Your task to perform on an android device: Open Android settings Image 0: 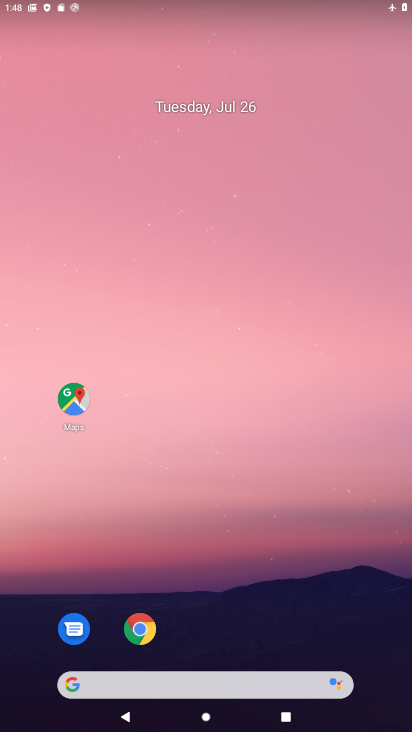
Step 0: drag from (162, 667) to (265, 52)
Your task to perform on an android device: Open Android settings Image 1: 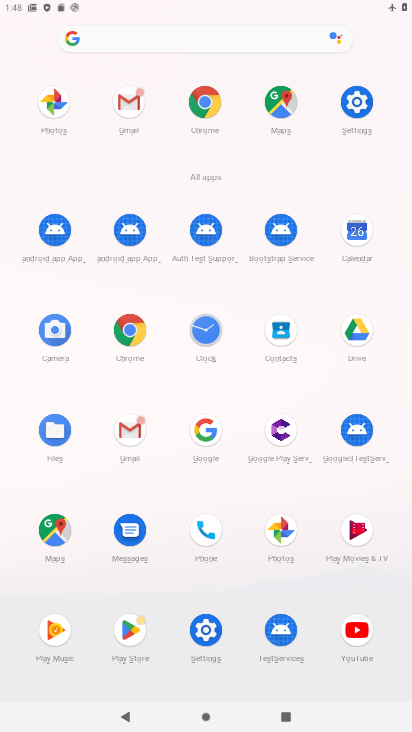
Step 1: click (358, 108)
Your task to perform on an android device: Open Android settings Image 2: 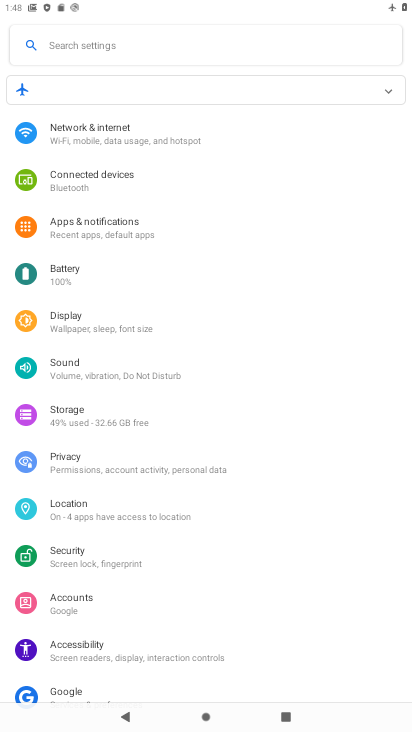
Step 2: task complete